Your task to perform on an android device: change keyboard looks Image 0: 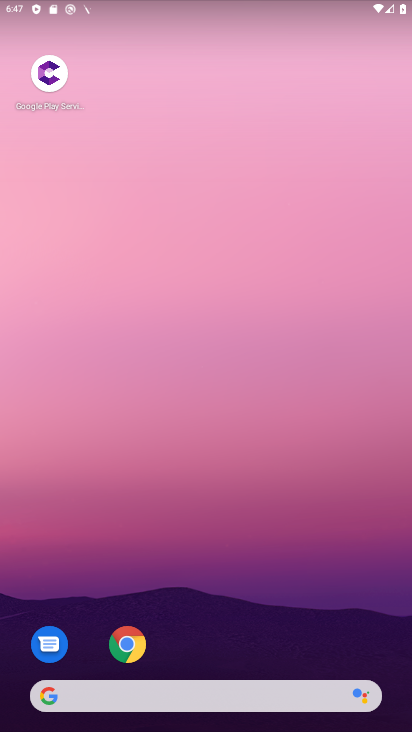
Step 0: press home button
Your task to perform on an android device: change keyboard looks Image 1: 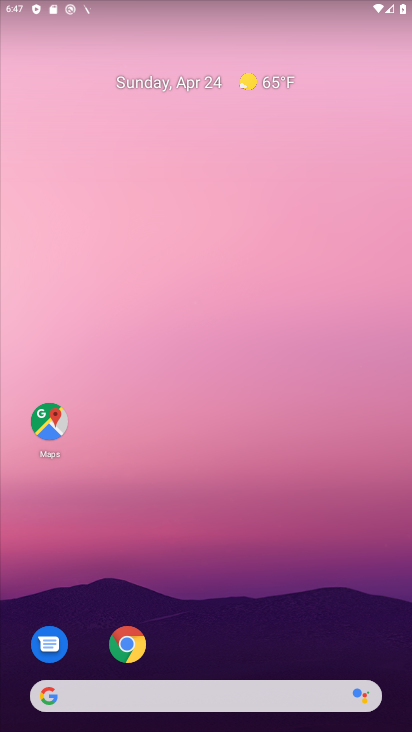
Step 1: drag from (205, 644) to (270, 119)
Your task to perform on an android device: change keyboard looks Image 2: 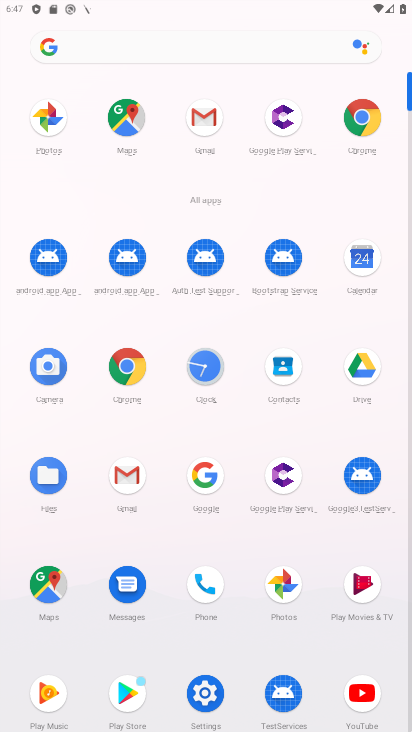
Step 2: drag from (242, 633) to (310, 107)
Your task to perform on an android device: change keyboard looks Image 3: 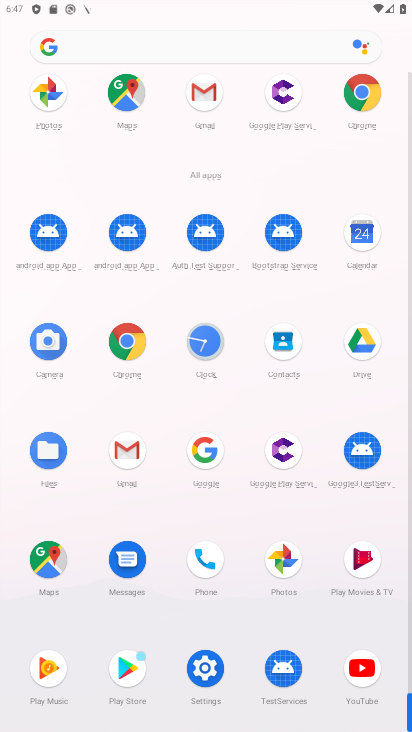
Step 3: click (201, 663)
Your task to perform on an android device: change keyboard looks Image 4: 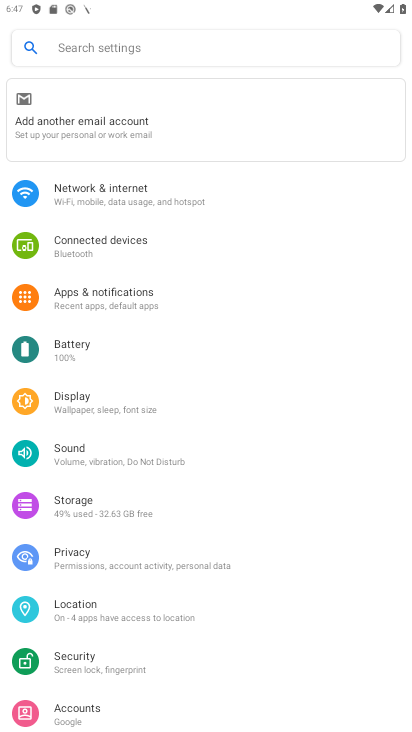
Step 4: drag from (137, 681) to (194, 195)
Your task to perform on an android device: change keyboard looks Image 5: 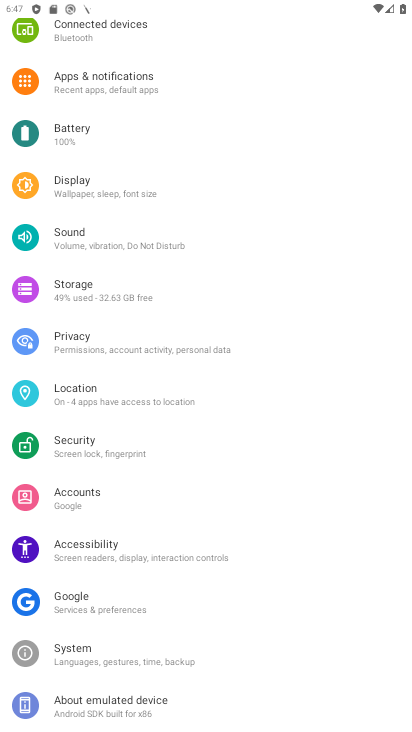
Step 5: click (107, 641)
Your task to perform on an android device: change keyboard looks Image 6: 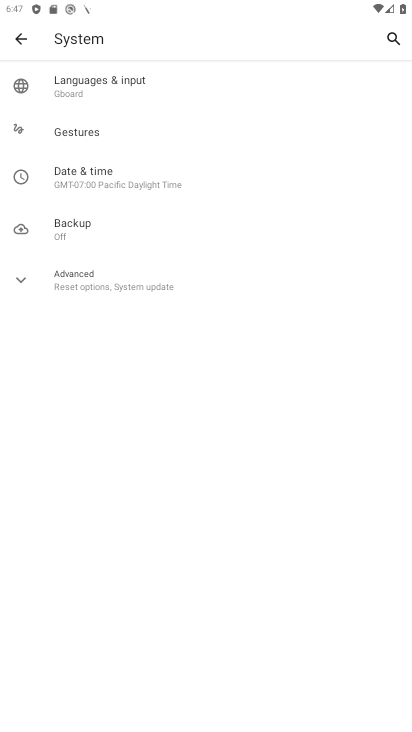
Step 6: click (100, 84)
Your task to perform on an android device: change keyboard looks Image 7: 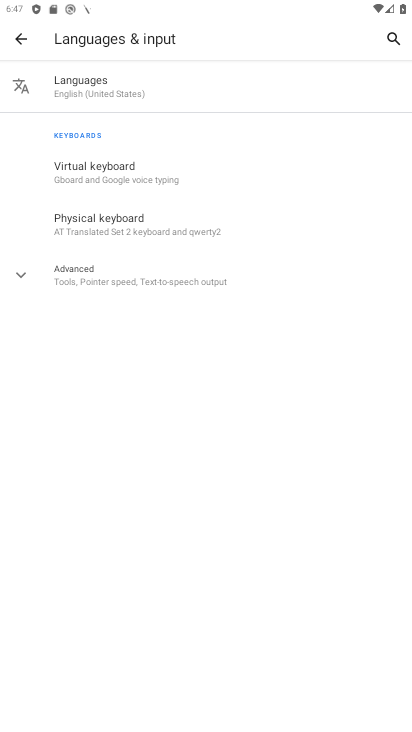
Step 7: click (133, 164)
Your task to perform on an android device: change keyboard looks Image 8: 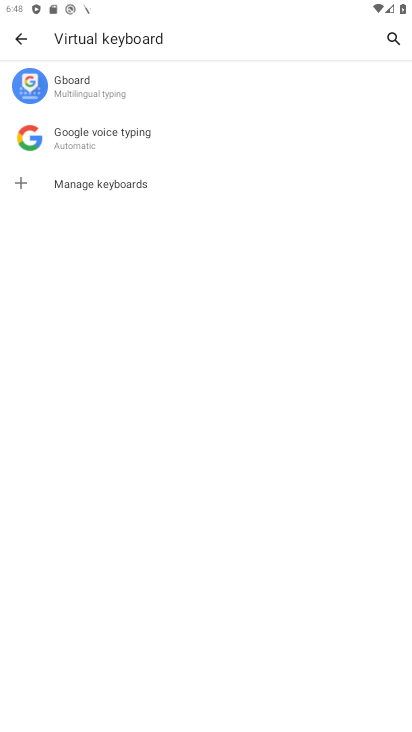
Step 8: click (92, 86)
Your task to perform on an android device: change keyboard looks Image 9: 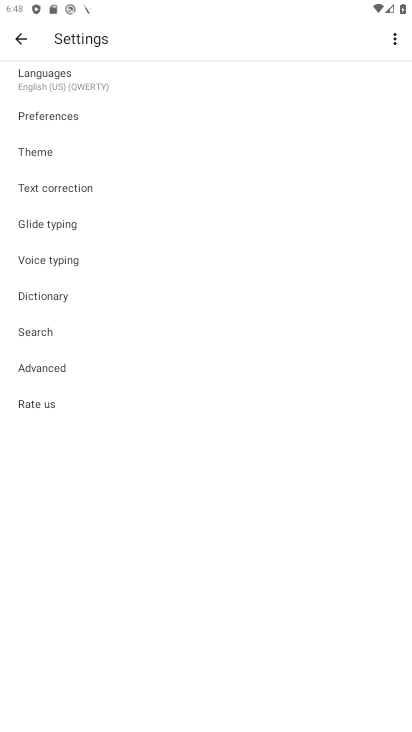
Step 9: click (50, 151)
Your task to perform on an android device: change keyboard looks Image 10: 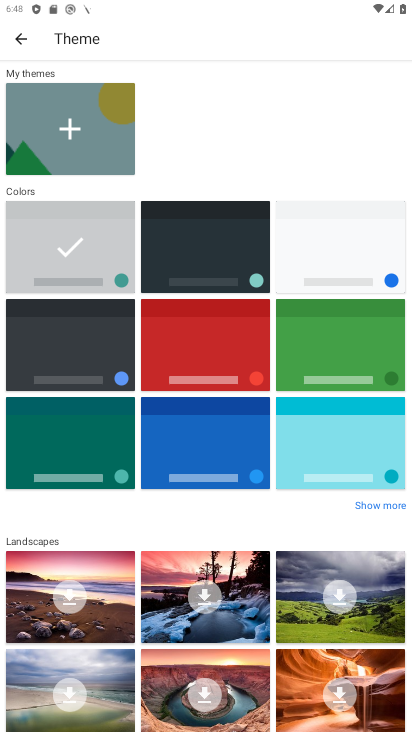
Step 10: click (326, 355)
Your task to perform on an android device: change keyboard looks Image 11: 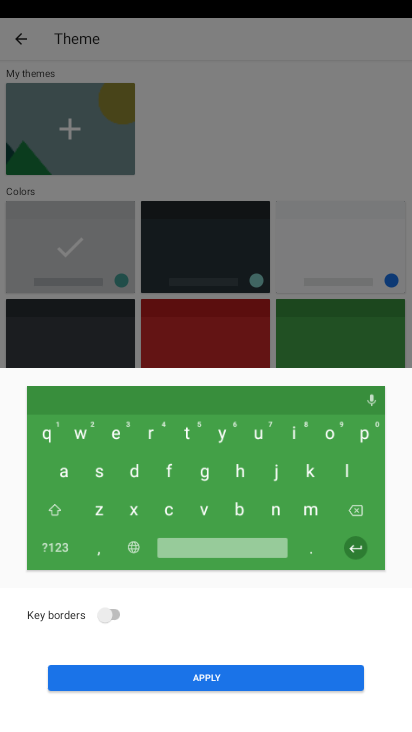
Step 11: click (214, 679)
Your task to perform on an android device: change keyboard looks Image 12: 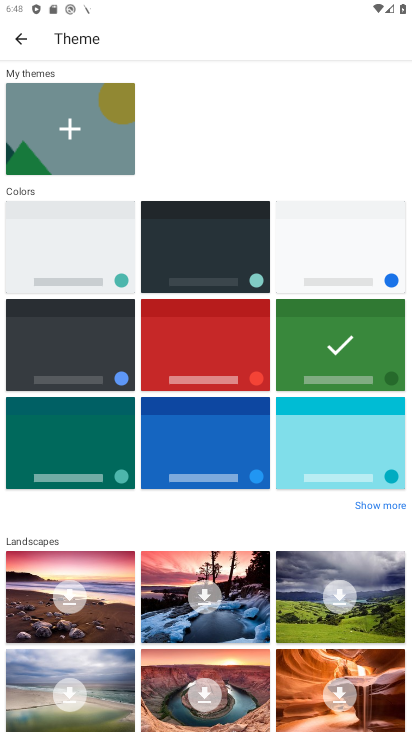
Step 12: task complete